Your task to perform on an android device: Open Google Chrome and open the bookmarks view Image 0: 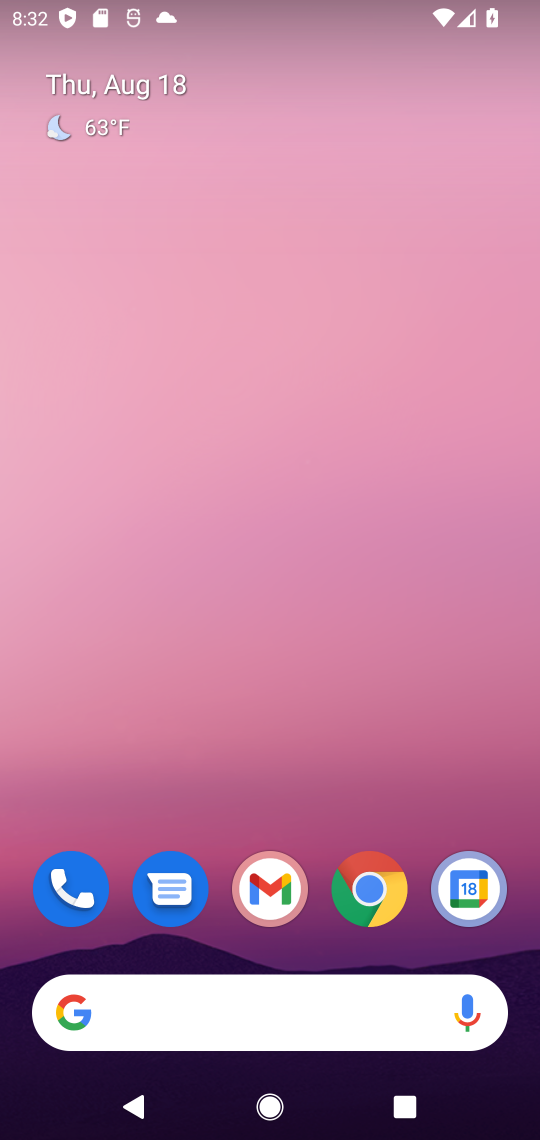
Step 0: press home button
Your task to perform on an android device: Open Google Chrome and open the bookmarks view Image 1: 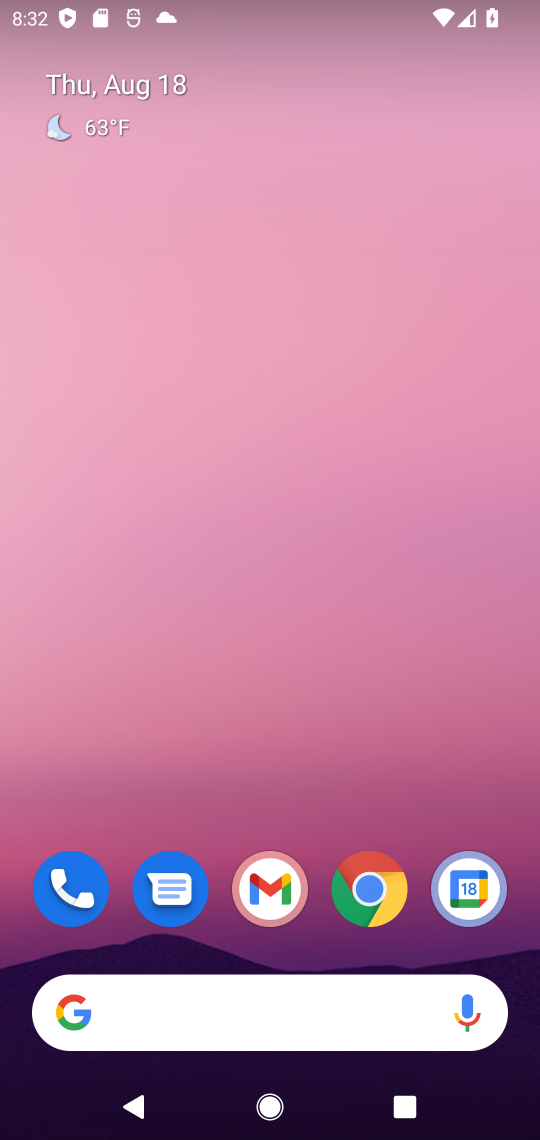
Step 1: click (386, 885)
Your task to perform on an android device: Open Google Chrome and open the bookmarks view Image 2: 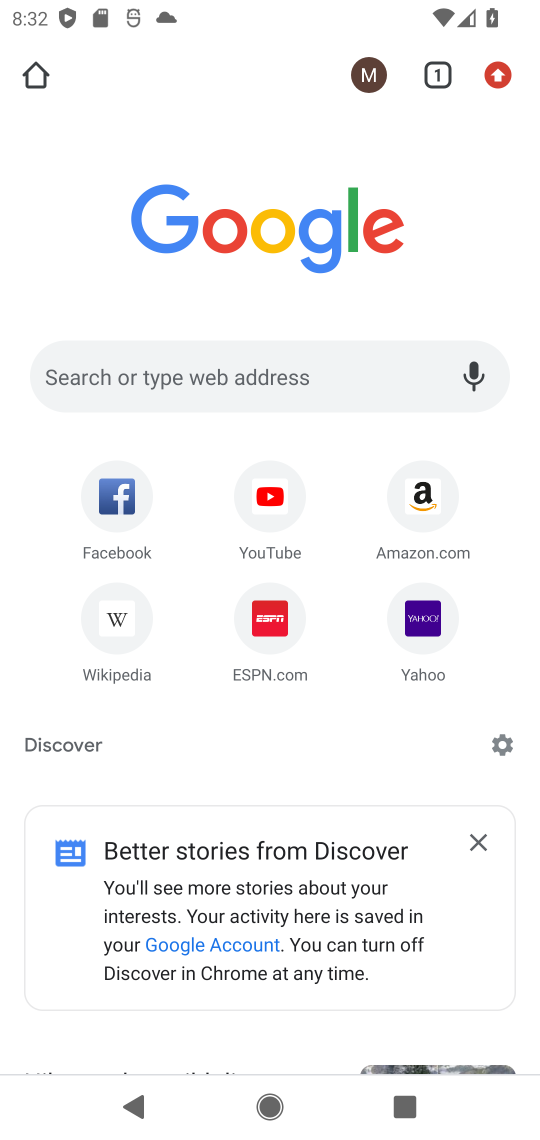
Step 2: task complete